Your task to perform on an android device: Search for Italian restaurants on Maps Image 0: 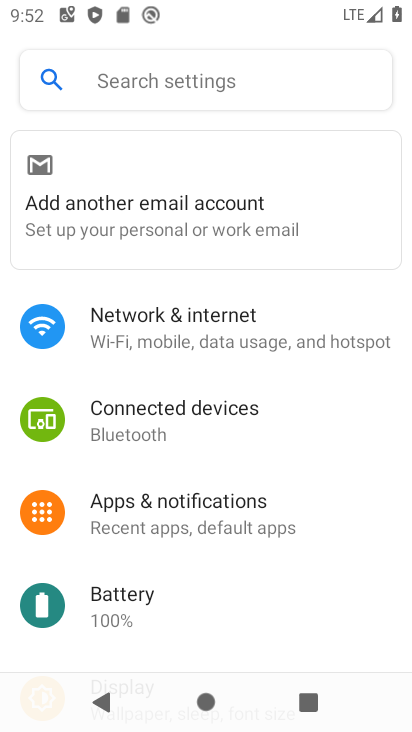
Step 0: press home button
Your task to perform on an android device: Search for Italian restaurants on Maps Image 1: 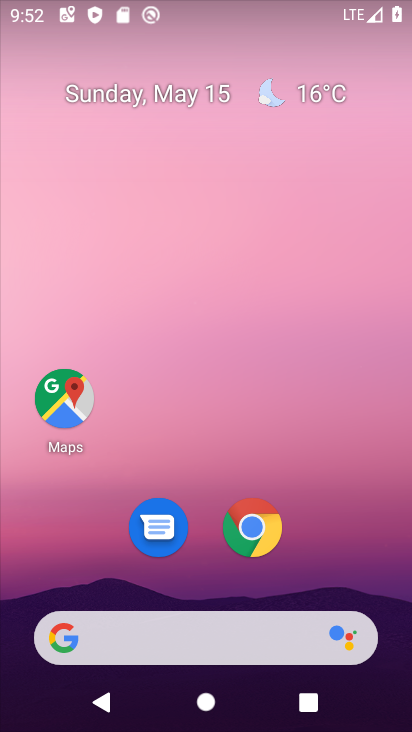
Step 1: click (69, 393)
Your task to perform on an android device: Search for Italian restaurants on Maps Image 2: 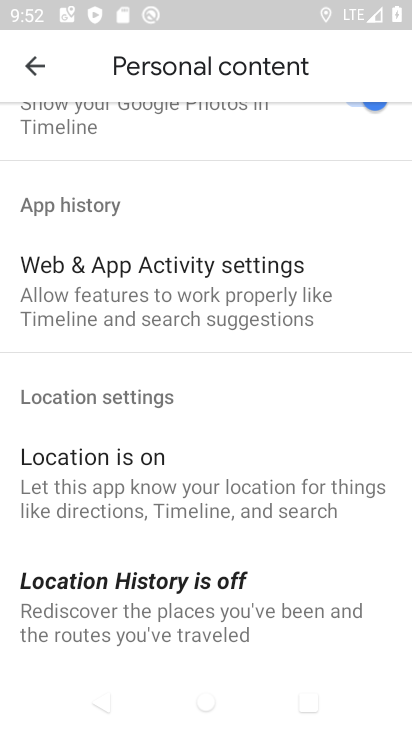
Step 2: click (37, 65)
Your task to perform on an android device: Search for Italian restaurants on Maps Image 3: 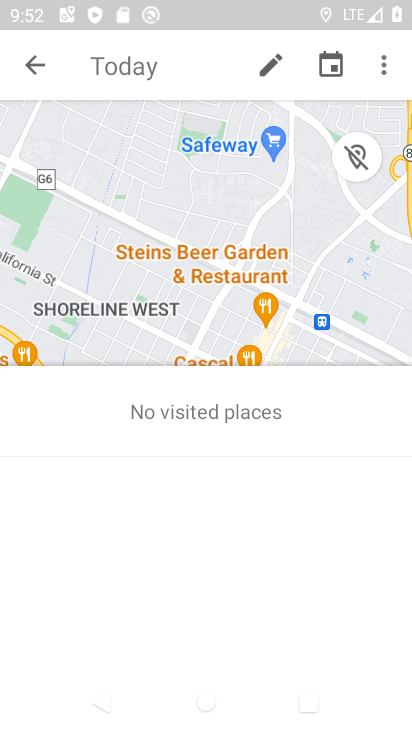
Step 3: click (34, 70)
Your task to perform on an android device: Search for Italian restaurants on Maps Image 4: 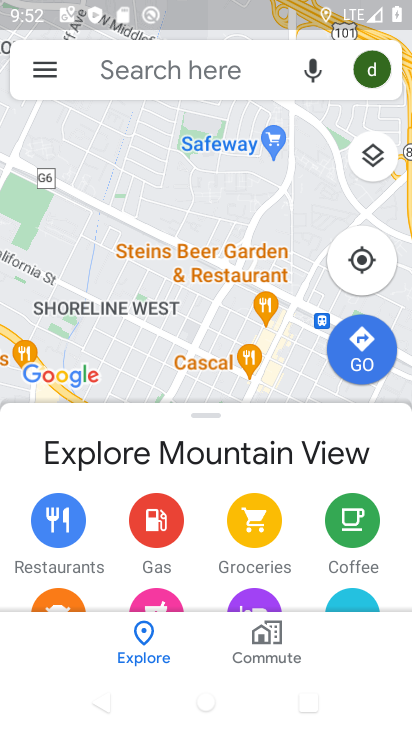
Step 4: click (130, 72)
Your task to perform on an android device: Search for Italian restaurants on Maps Image 5: 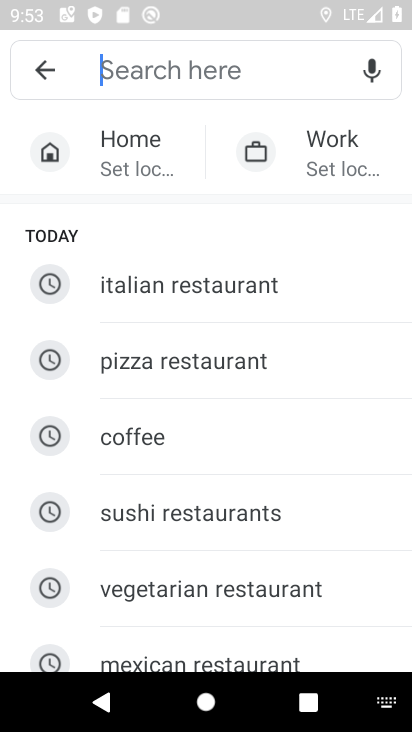
Step 5: type "italian restaurant "
Your task to perform on an android device: Search for Italian restaurants on Maps Image 6: 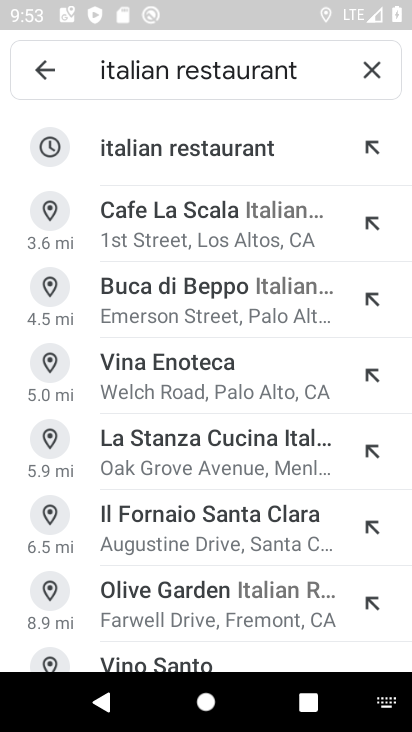
Step 6: click (166, 157)
Your task to perform on an android device: Search for Italian restaurants on Maps Image 7: 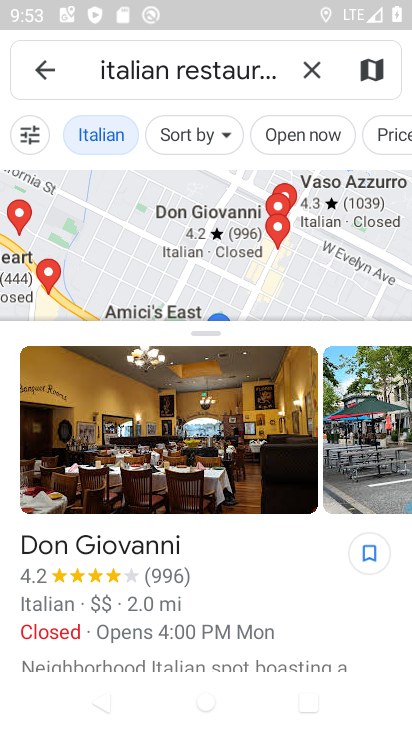
Step 7: task complete